Your task to perform on an android device: search for starred emails in the gmail app Image 0: 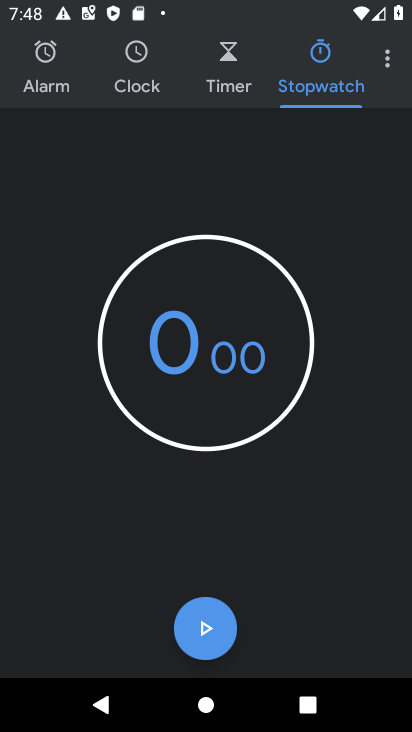
Step 0: press home button
Your task to perform on an android device: search for starred emails in the gmail app Image 1: 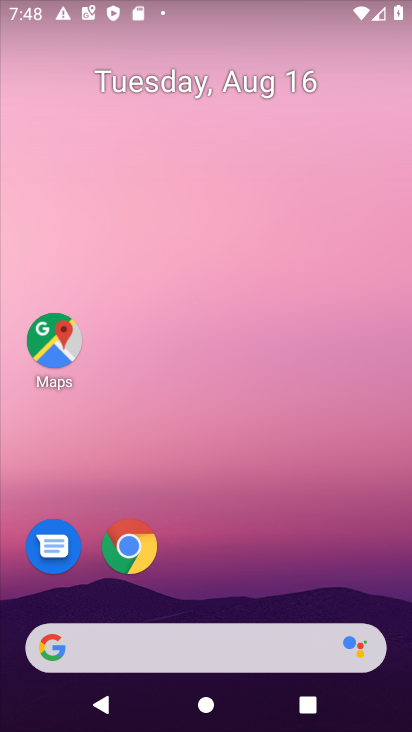
Step 1: drag from (253, 571) to (254, 33)
Your task to perform on an android device: search for starred emails in the gmail app Image 2: 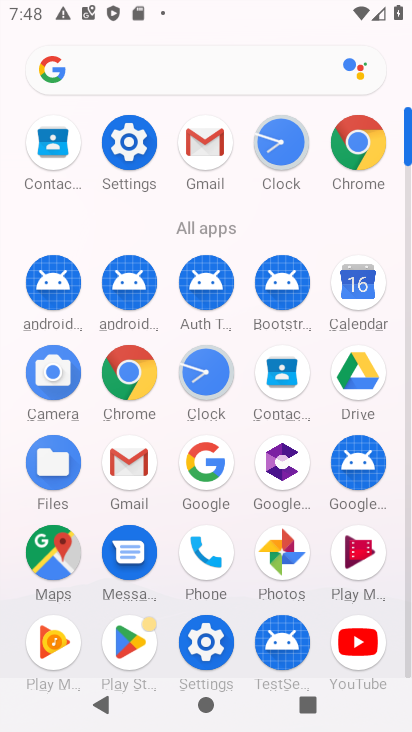
Step 2: click (206, 146)
Your task to perform on an android device: search for starred emails in the gmail app Image 3: 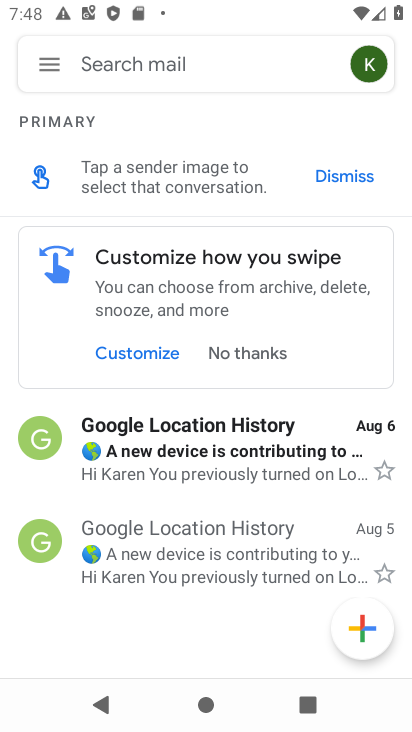
Step 3: click (45, 58)
Your task to perform on an android device: search for starred emails in the gmail app Image 4: 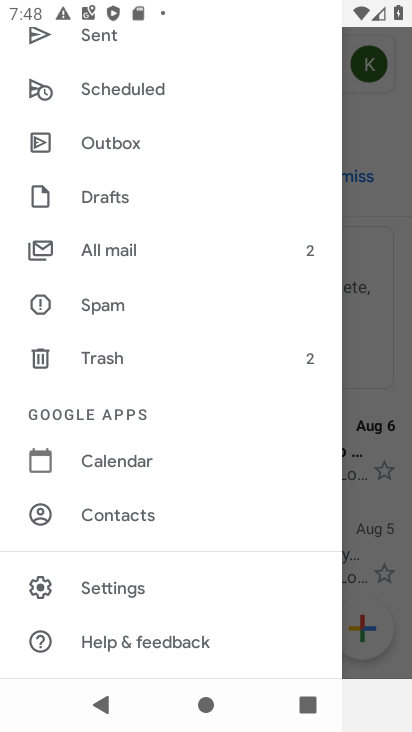
Step 4: drag from (174, 166) to (204, 601)
Your task to perform on an android device: search for starred emails in the gmail app Image 5: 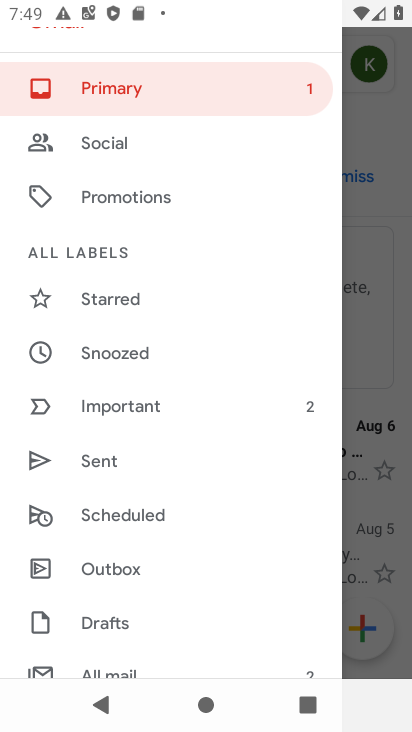
Step 5: click (126, 295)
Your task to perform on an android device: search for starred emails in the gmail app Image 6: 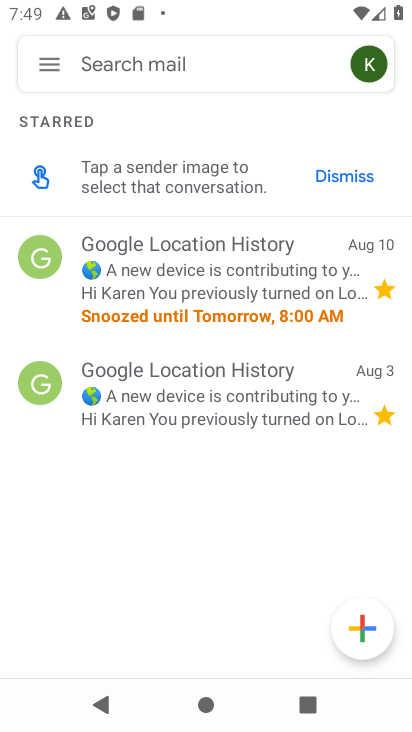
Step 6: task complete